Your task to perform on an android device: clear history in the chrome app Image 0: 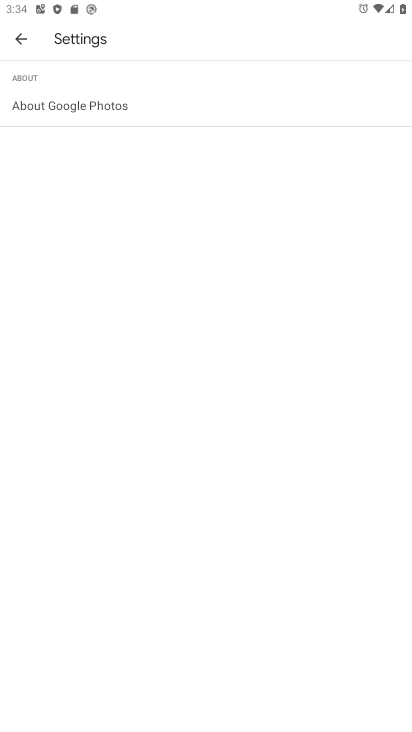
Step 0: press home button
Your task to perform on an android device: clear history in the chrome app Image 1: 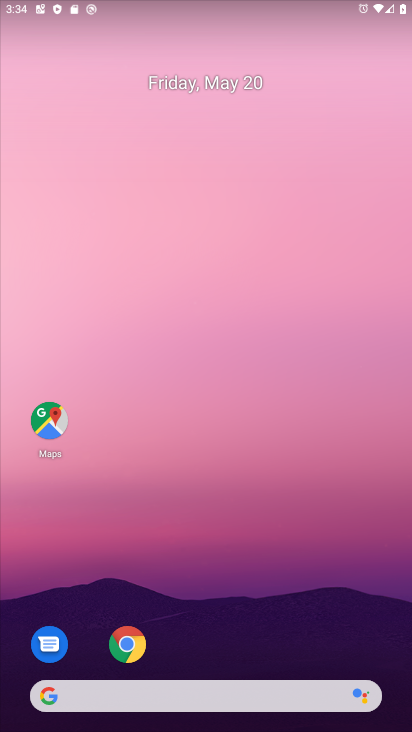
Step 1: click (140, 645)
Your task to perform on an android device: clear history in the chrome app Image 2: 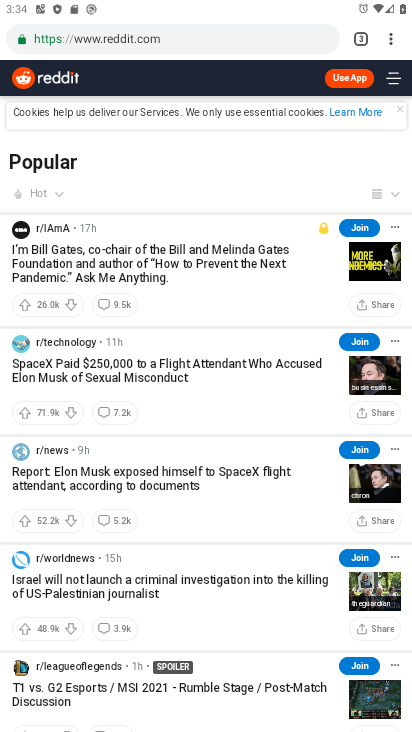
Step 2: click (385, 36)
Your task to perform on an android device: clear history in the chrome app Image 3: 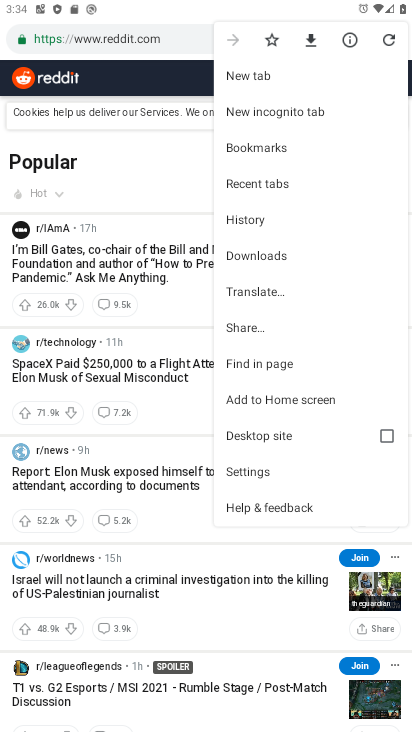
Step 3: click (269, 218)
Your task to perform on an android device: clear history in the chrome app Image 4: 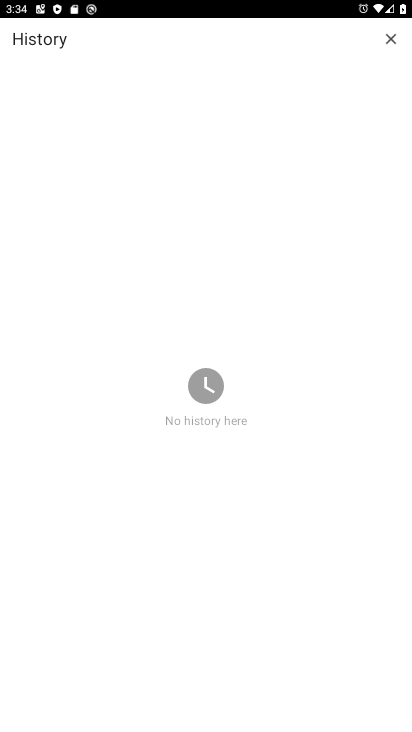
Step 4: task complete